Your task to perform on an android device: What's the weather today? Image 0: 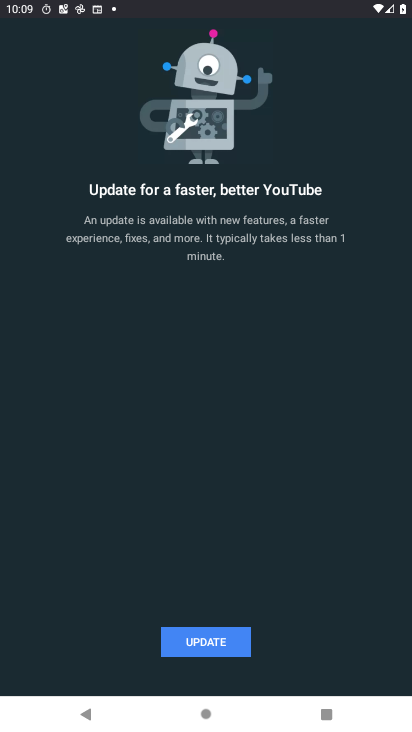
Step 0: press home button
Your task to perform on an android device: What's the weather today? Image 1: 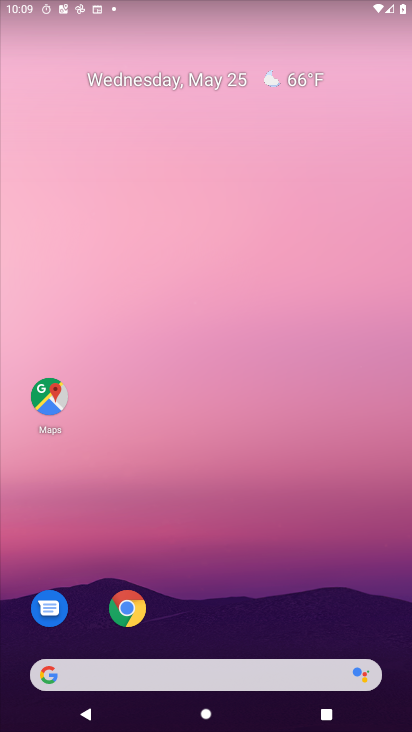
Step 1: click (274, 80)
Your task to perform on an android device: What's the weather today? Image 2: 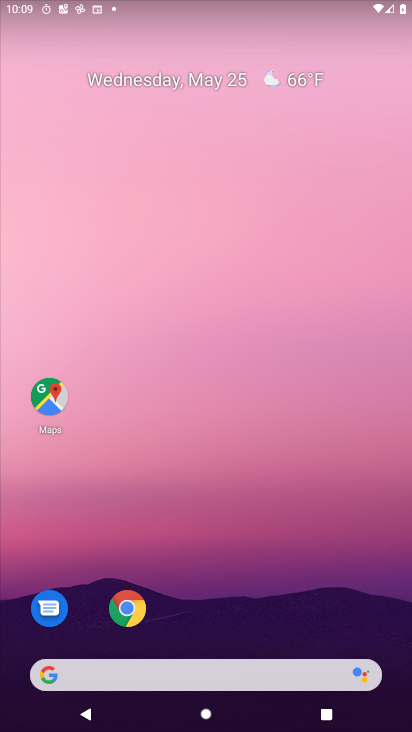
Step 2: click (271, 81)
Your task to perform on an android device: What's the weather today? Image 3: 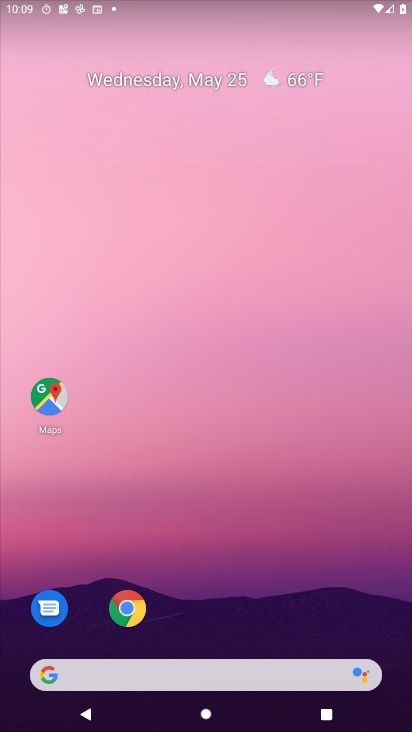
Step 3: drag from (223, 725) to (219, 24)
Your task to perform on an android device: What's the weather today? Image 4: 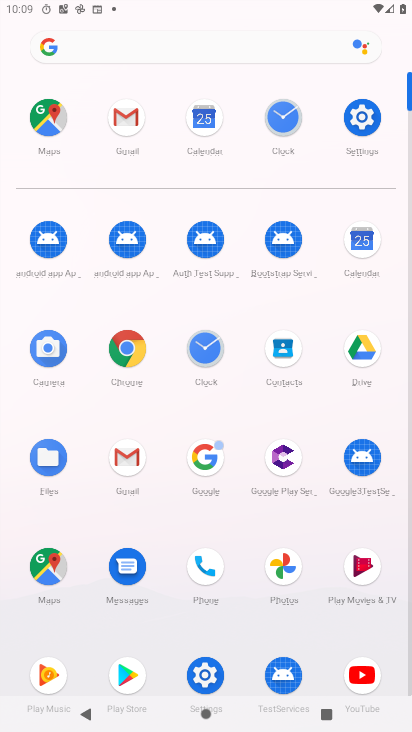
Step 4: click (198, 456)
Your task to perform on an android device: What's the weather today? Image 5: 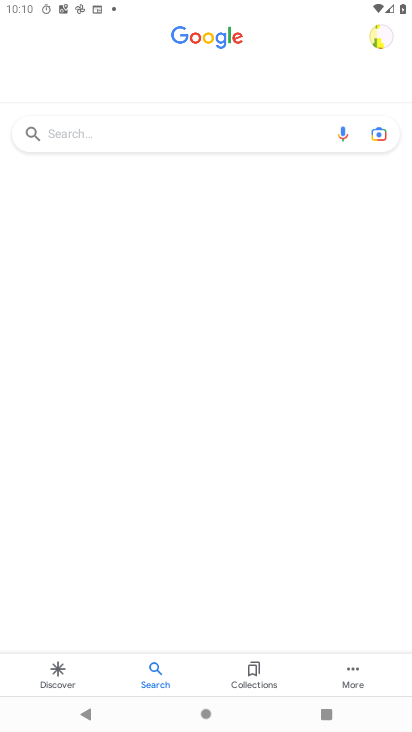
Step 5: click (171, 132)
Your task to perform on an android device: What's the weather today? Image 6: 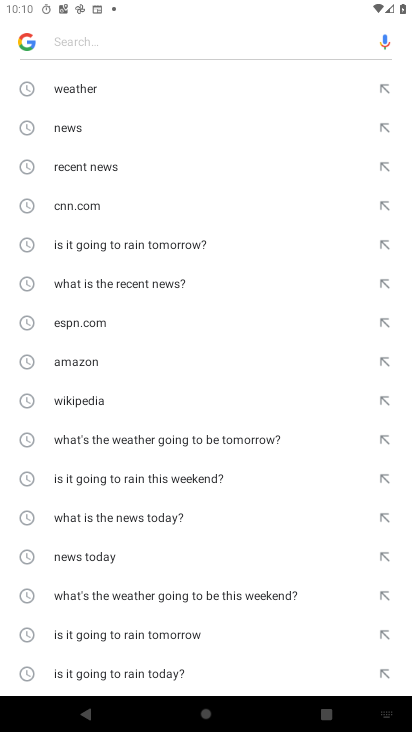
Step 6: click (74, 86)
Your task to perform on an android device: What's the weather today? Image 7: 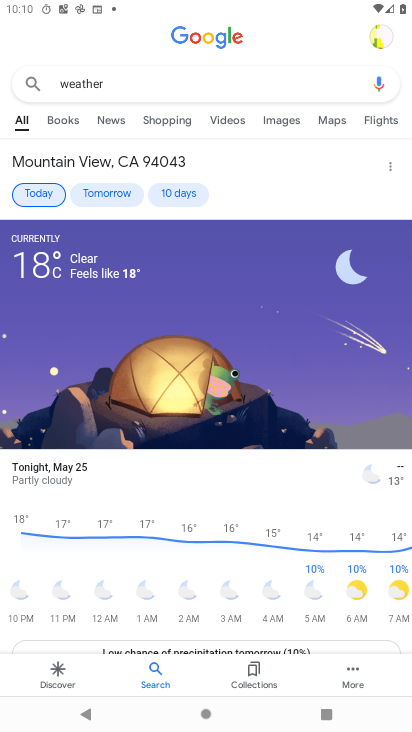
Step 7: click (45, 189)
Your task to perform on an android device: What's the weather today? Image 8: 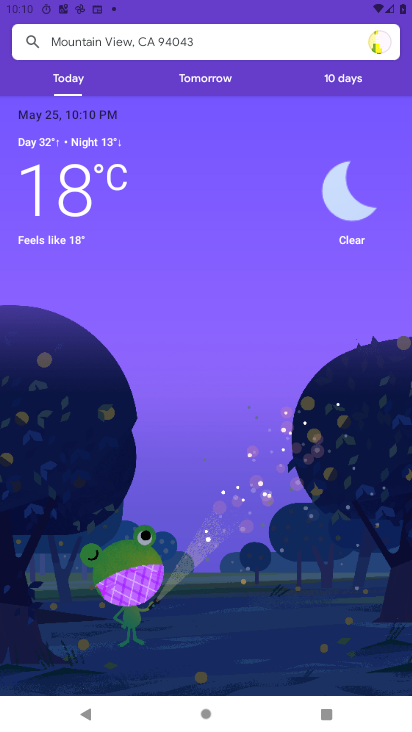
Step 8: task complete